Your task to perform on an android device: What's on my calendar tomorrow? Image 0: 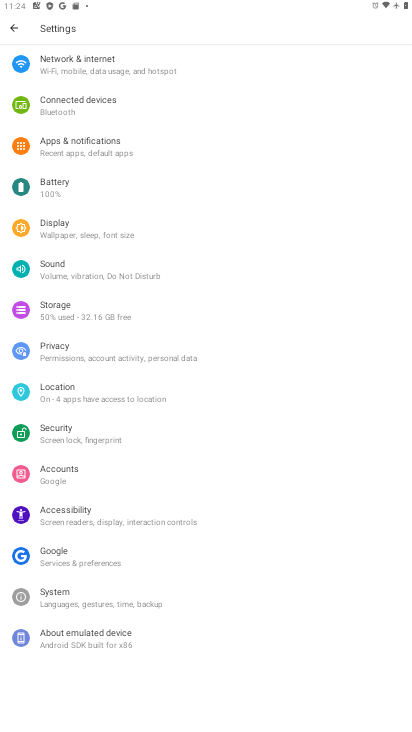
Step 0: press home button
Your task to perform on an android device: What's on my calendar tomorrow? Image 1: 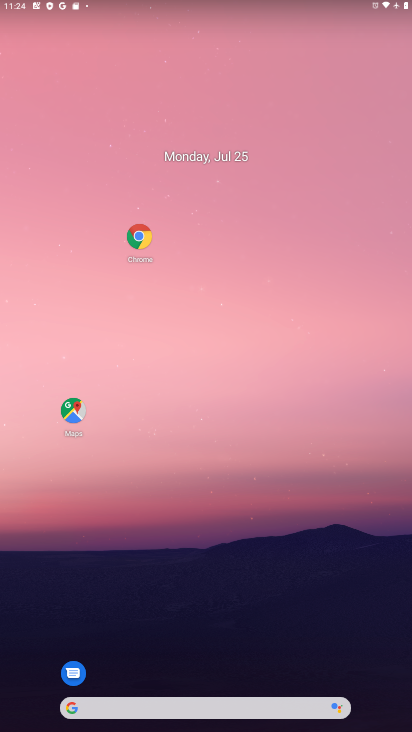
Step 1: drag from (216, 685) to (166, 89)
Your task to perform on an android device: What's on my calendar tomorrow? Image 2: 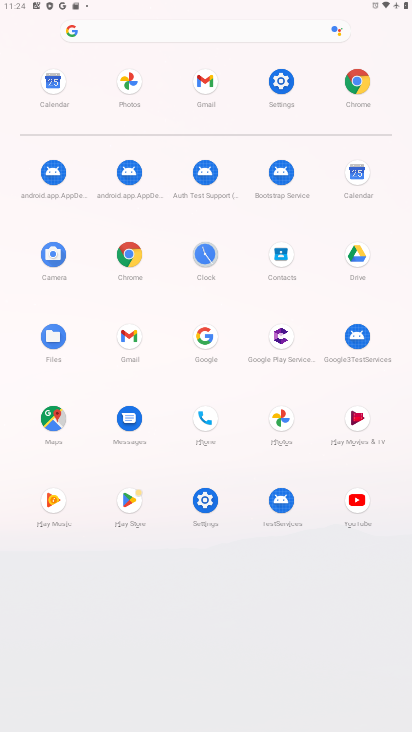
Step 2: click (355, 171)
Your task to perform on an android device: What's on my calendar tomorrow? Image 3: 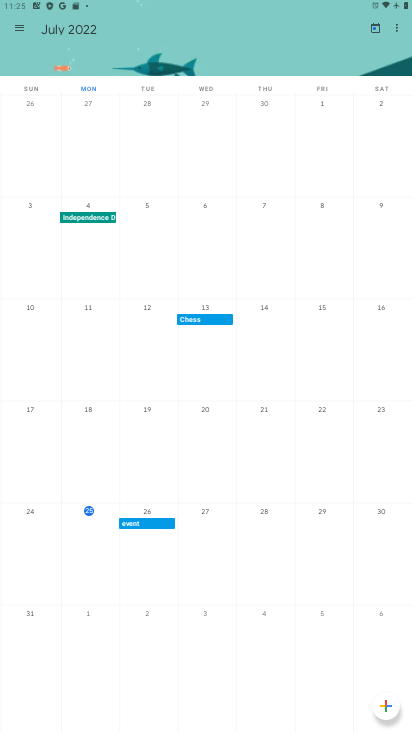
Step 3: task complete